Your task to perform on an android device: turn on showing notifications on the lock screen Image 0: 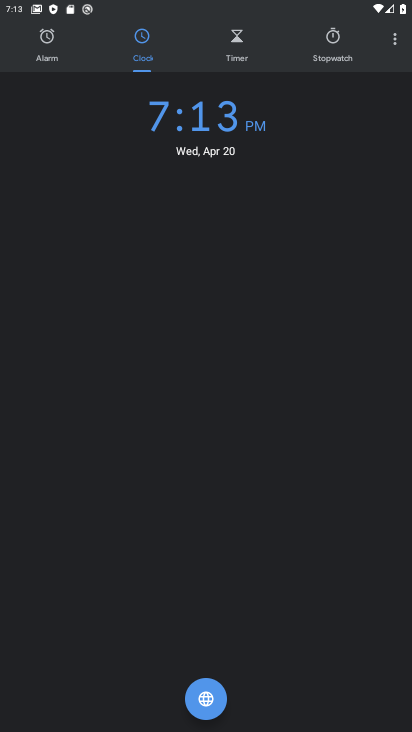
Step 0: press home button
Your task to perform on an android device: turn on showing notifications on the lock screen Image 1: 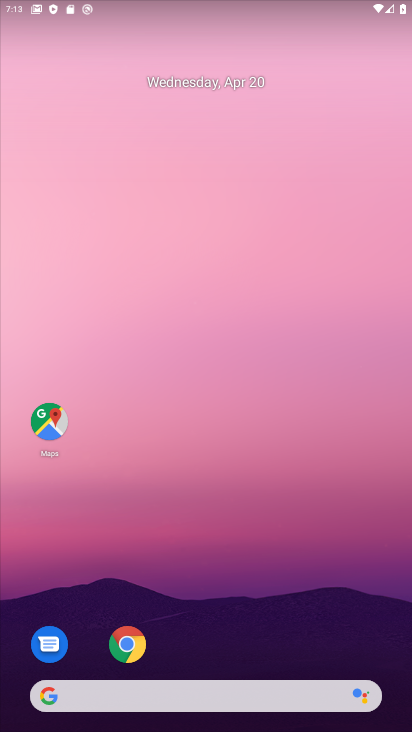
Step 1: drag from (291, 529) to (192, 113)
Your task to perform on an android device: turn on showing notifications on the lock screen Image 2: 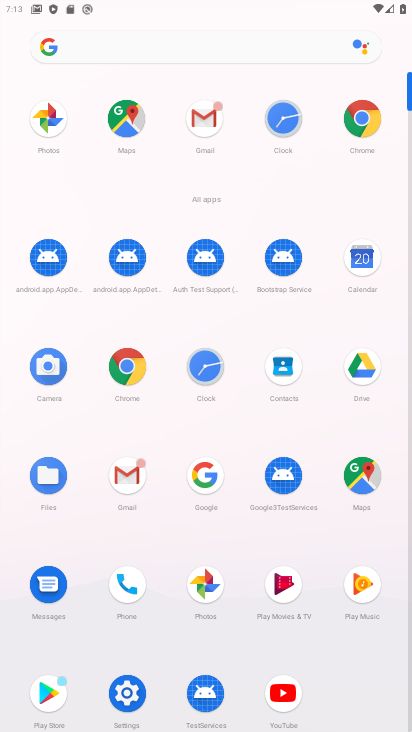
Step 2: click (125, 698)
Your task to perform on an android device: turn on showing notifications on the lock screen Image 3: 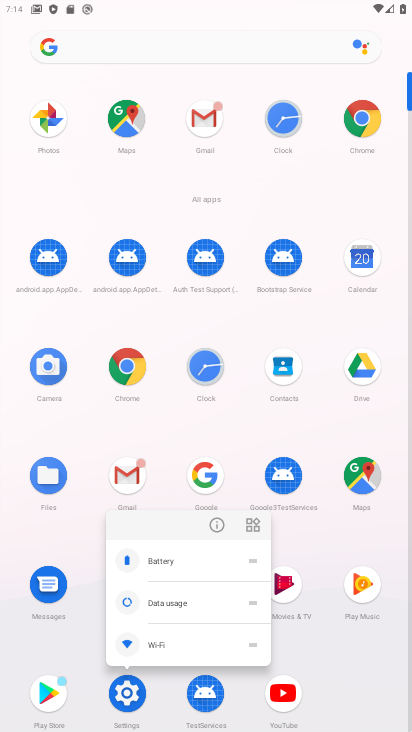
Step 3: click (132, 692)
Your task to perform on an android device: turn on showing notifications on the lock screen Image 4: 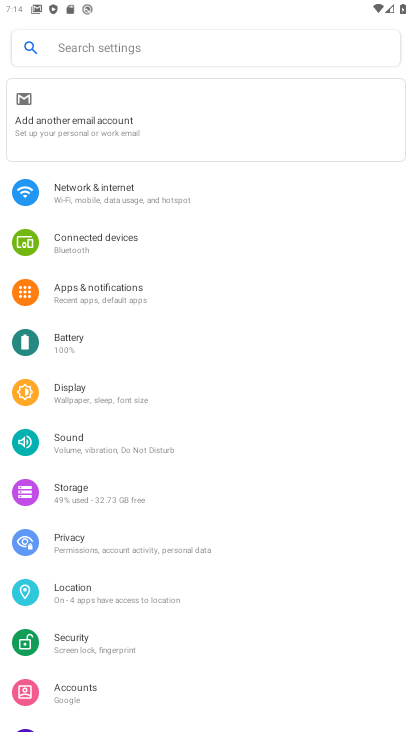
Step 4: click (217, 311)
Your task to perform on an android device: turn on showing notifications on the lock screen Image 5: 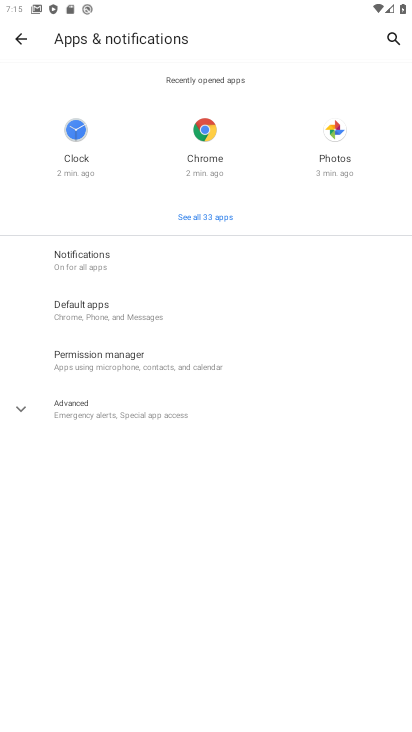
Step 5: click (160, 258)
Your task to perform on an android device: turn on showing notifications on the lock screen Image 6: 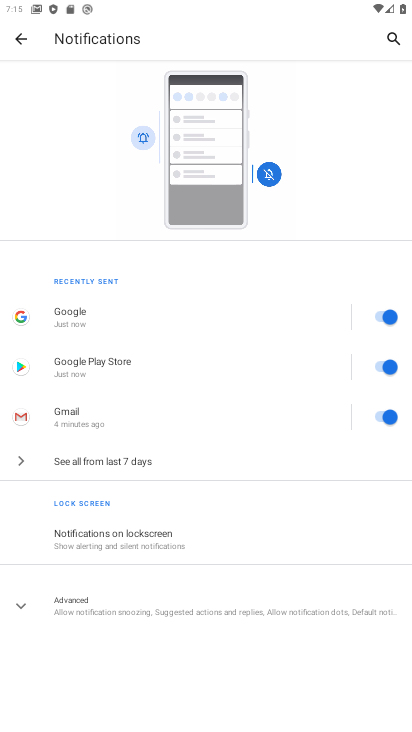
Step 6: click (99, 545)
Your task to perform on an android device: turn on showing notifications on the lock screen Image 7: 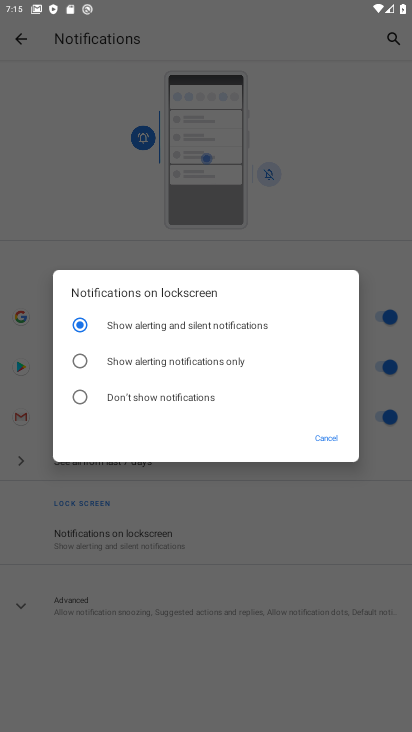
Step 7: task complete